Your task to perform on an android device: Search for pizza restaurants on Maps Image 0: 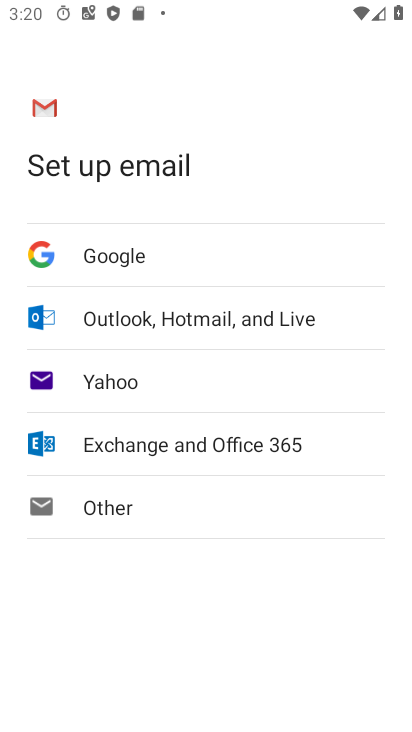
Step 0: press home button
Your task to perform on an android device: Search for pizza restaurants on Maps Image 1: 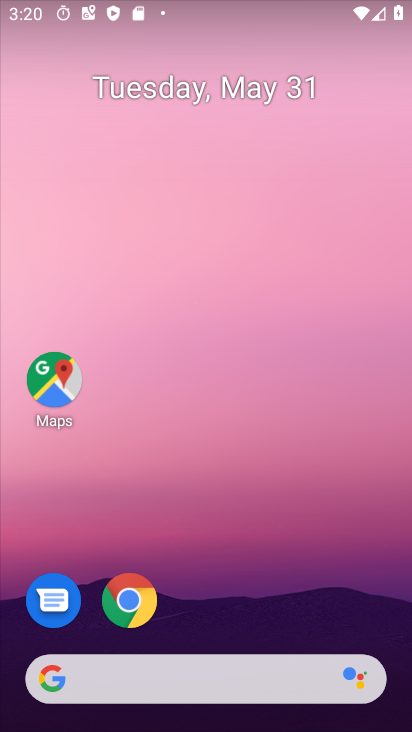
Step 1: click (55, 380)
Your task to perform on an android device: Search for pizza restaurants on Maps Image 2: 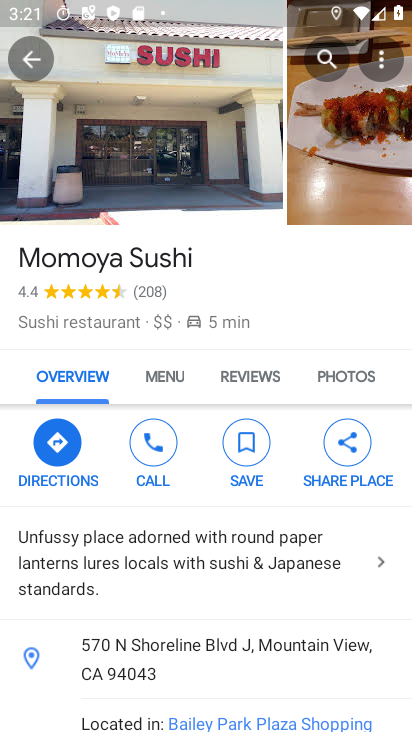
Step 2: click (48, 50)
Your task to perform on an android device: Search for pizza restaurants on Maps Image 3: 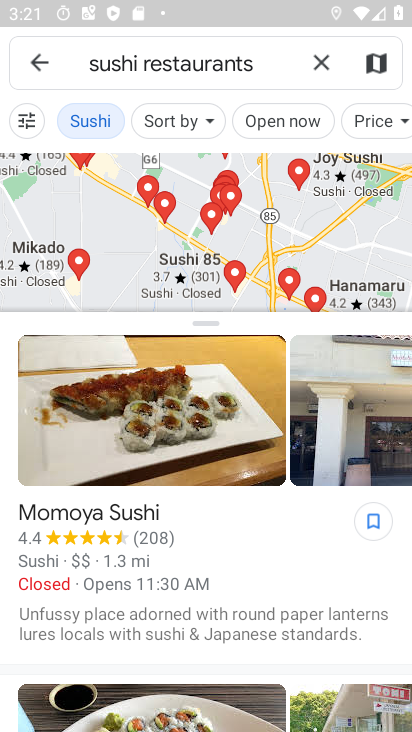
Step 3: click (323, 63)
Your task to perform on an android device: Search for pizza restaurants on Maps Image 4: 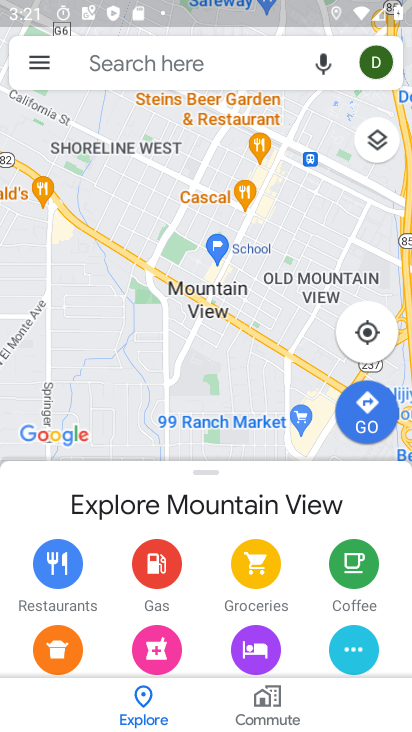
Step 4: click (162, 55)
Your task to perform on an android device: Search for pizza restaurants on Maps Image 5: 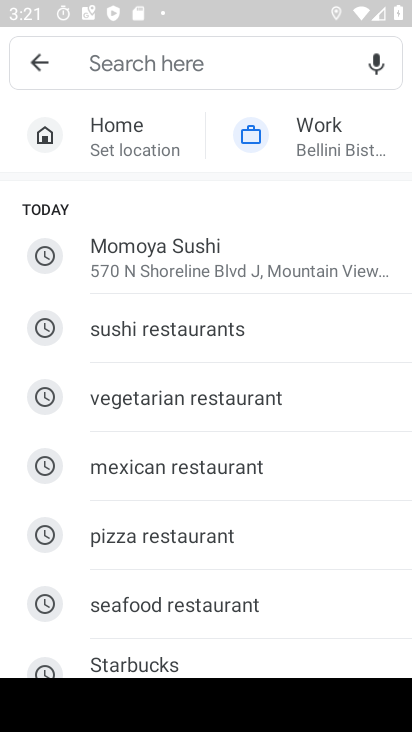
Step 5: click (245, 534)
Your task to perform on an android device: Search for pizza restaurants on Maps Image 6: 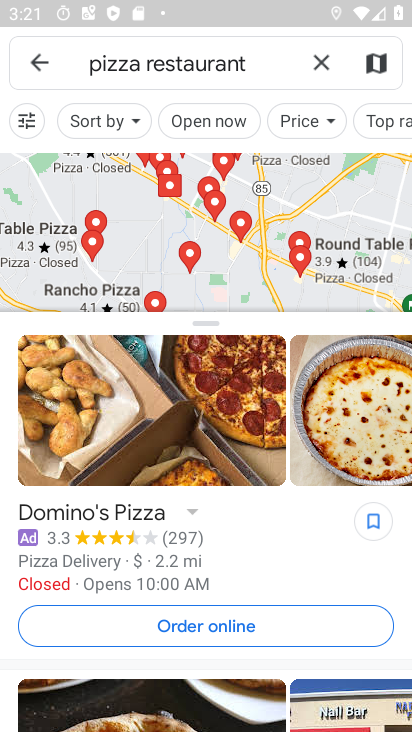
Step 6: task complete